Your task to perform on an android device: allow cookies in the chrome app Image 0: 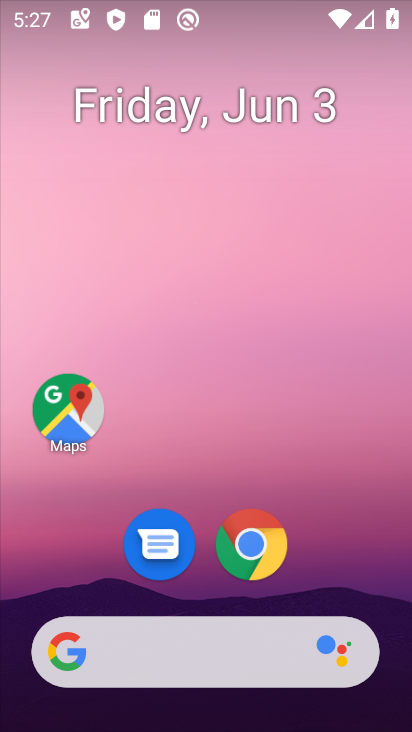
Step 0: click (255, 539)
Your task to perform on an android device: allow cookies in the chrome app Image 1: 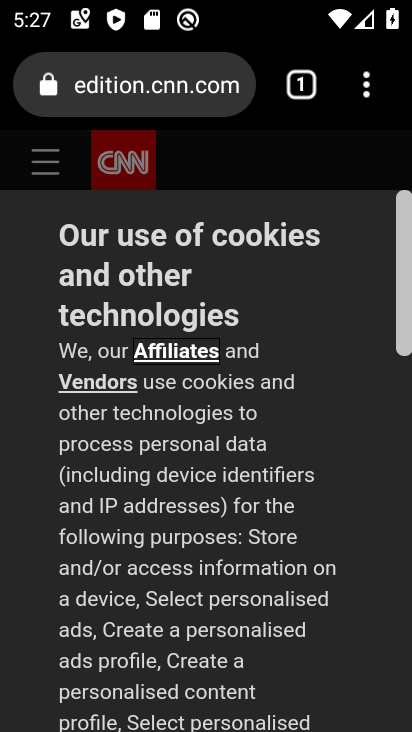
Step 1: drag from (358, 92) to (130, 610)
Your task to perform on an android device: allow cookies in the chrome app Image 2: 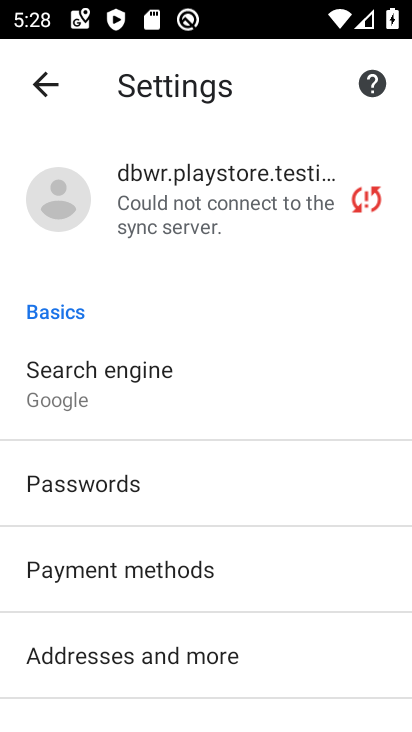
Step 2: drag from (263, 599) to (308, 360)
Your task to perform on an android device: allow cookies in the chrome app Image 3: 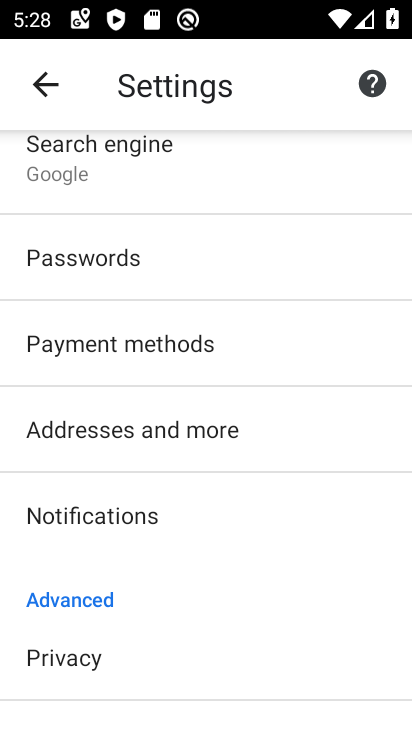
Step 3: drag from (266, 624) to (347, 240)
Your task to perform on an android device: allow cookies in the chrome app Image 4: 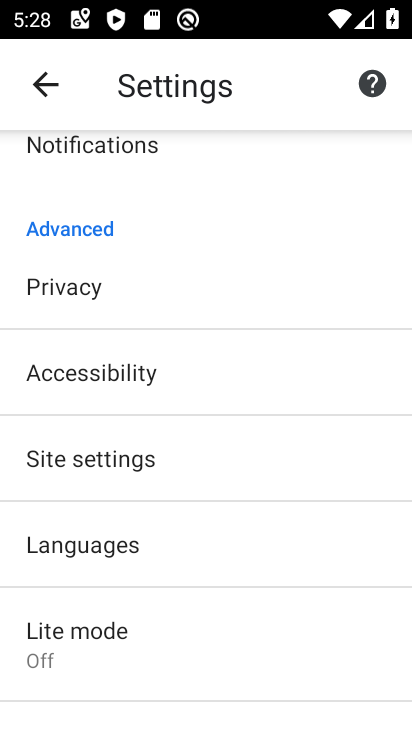
Step 4: click (124, 461)
Your task to perform on an android device: allow cookies in the chrome app Image 5: 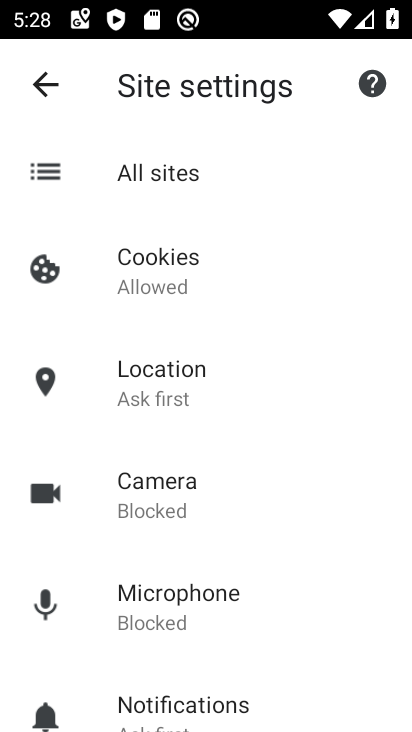
Step 5: click (161, 261)
Your task to perform on an android device: allow cookies in the chrome app Image 6: 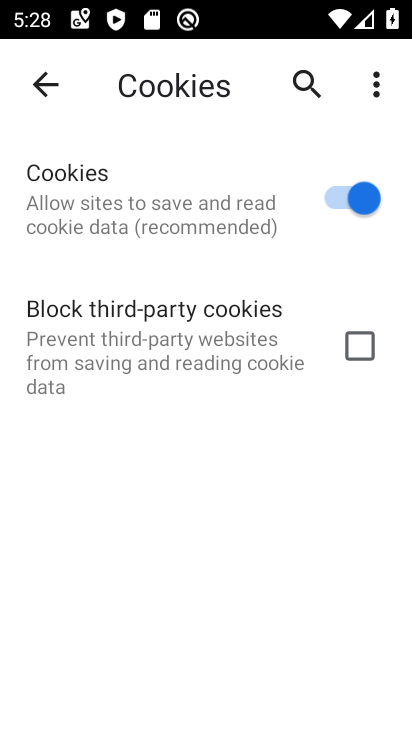
Step 6: task complete